Your task to perform on an android device: Show me productivity apps on the Play Store Image 0: 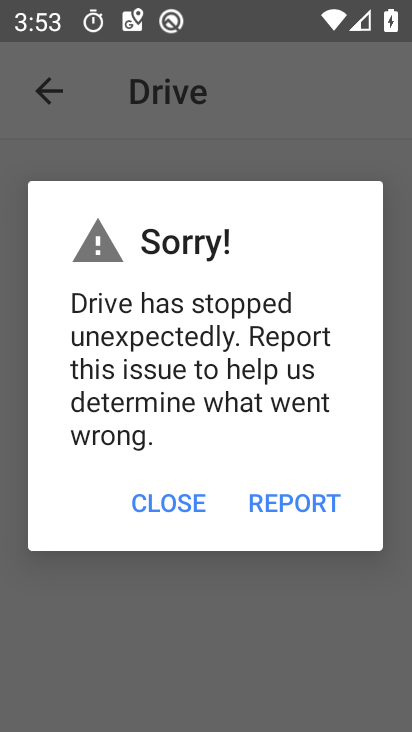
Step 0: press home button
Your task to perform on an android device: Show me productivity apps on the Play Store Image 1: 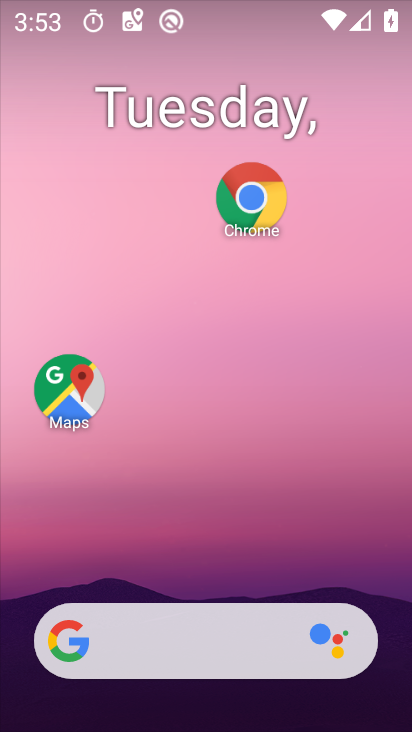
Step 1: drag from (260, 602) to (225, 274)
Your task to perform on an android device: Show me productivity apps on the Play Store Image 2: 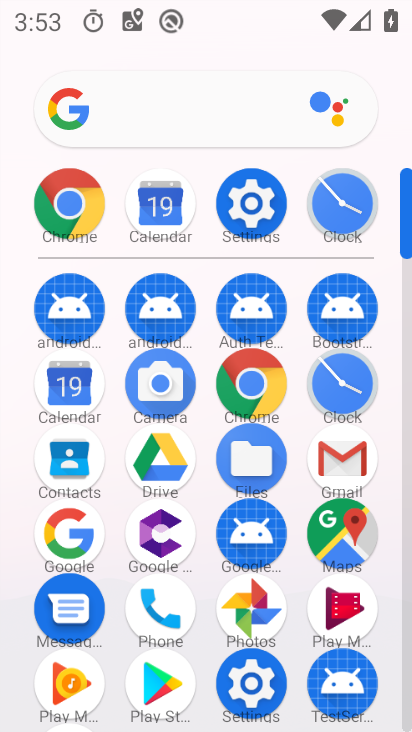
Step 2: click (157, 668)
Your task to perform on an android device: Show me productivity apps on the Play Store Image 3: 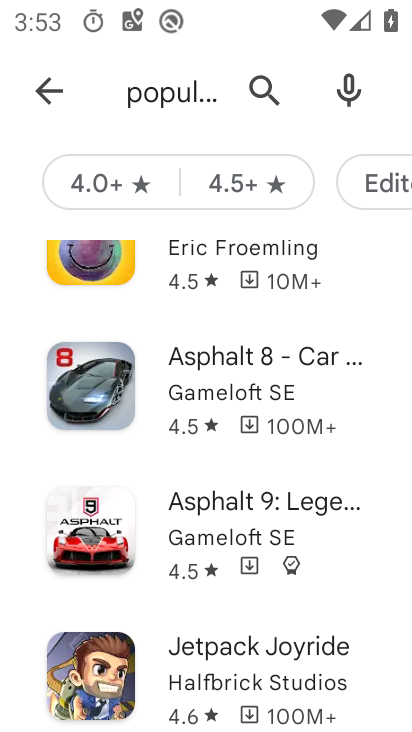
Step 3: click (56, 85)
Your task to perform on an android device: Show me productivity apps on the Play Store Image 4: 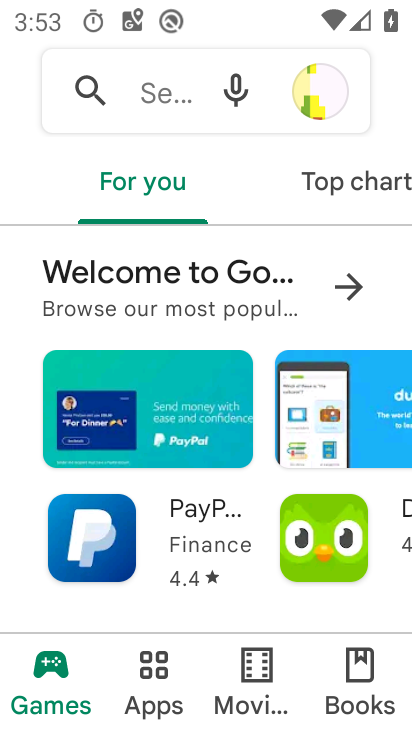
Step 4: click (152, 656)
Your task to perform on an android device: Show me productivity apps on the Play Store Image 5: 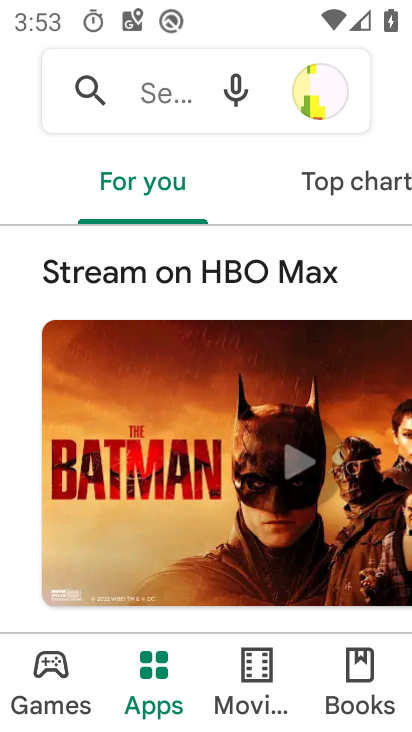
Step 5: task complete